Your task to perform on an android device: Search for sushi restaurants on Maps Image 0: 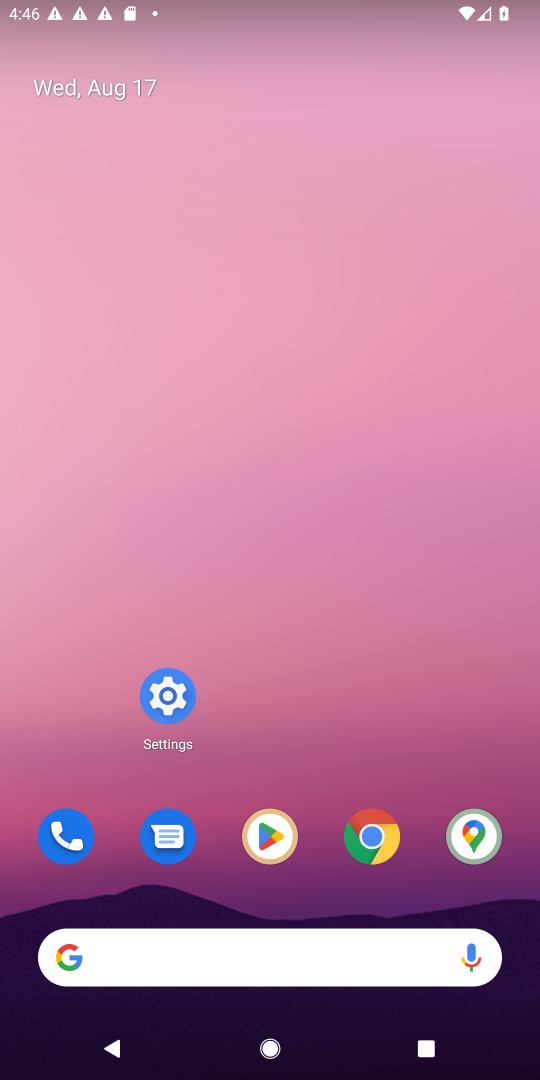
Step 0: click (474, 831)
Your task to perform on an android device: Search for sushi restaurants on Maps Image 1: 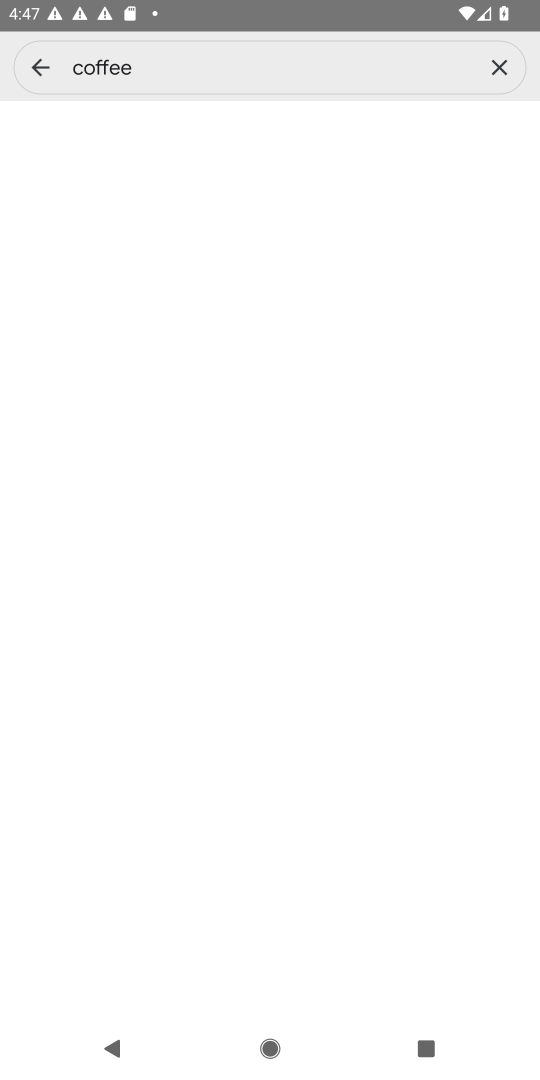
Step 1: click (496, 52)
Your task to perform on an android device: Search for sushi restaurants on Maps Image 2: 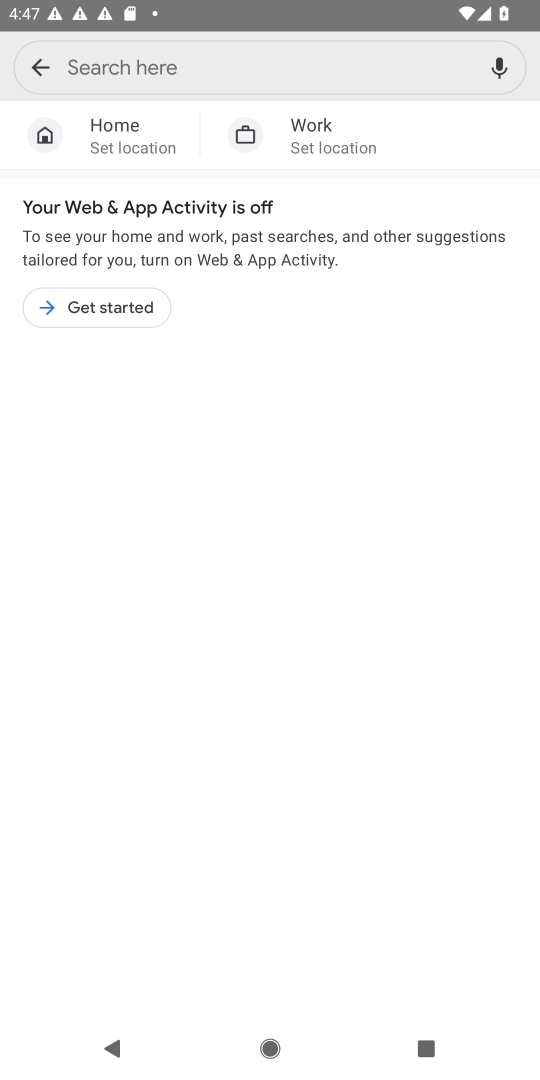
Step 2: type "sushi restaurants"
Your task to perform on an android device: Search for sushi restaurants on Maps Image 3: 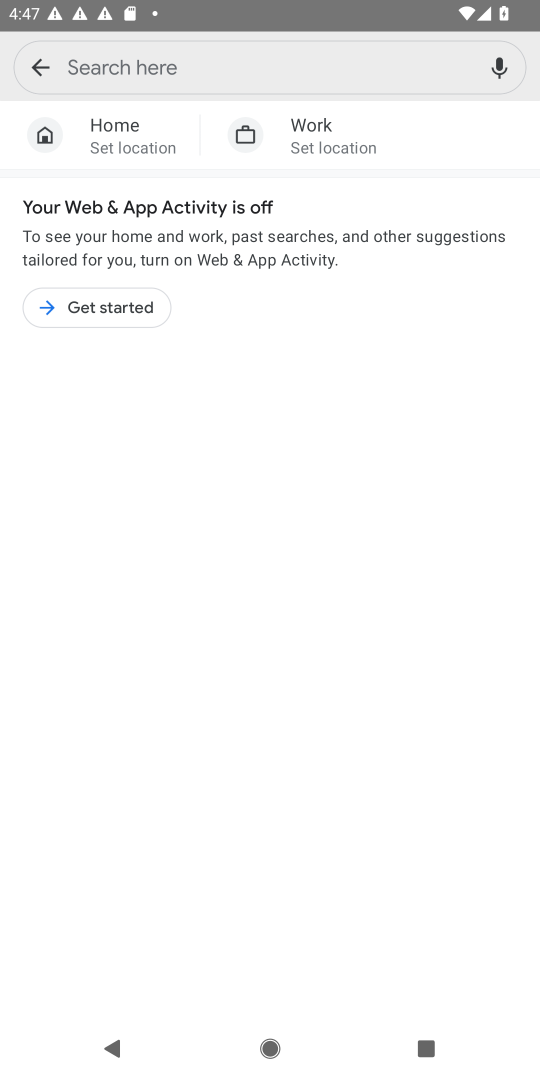
Step 3: click (95, 51)
Your task to perform on an android device: Search for sushi restaurants on Maps Image 4: 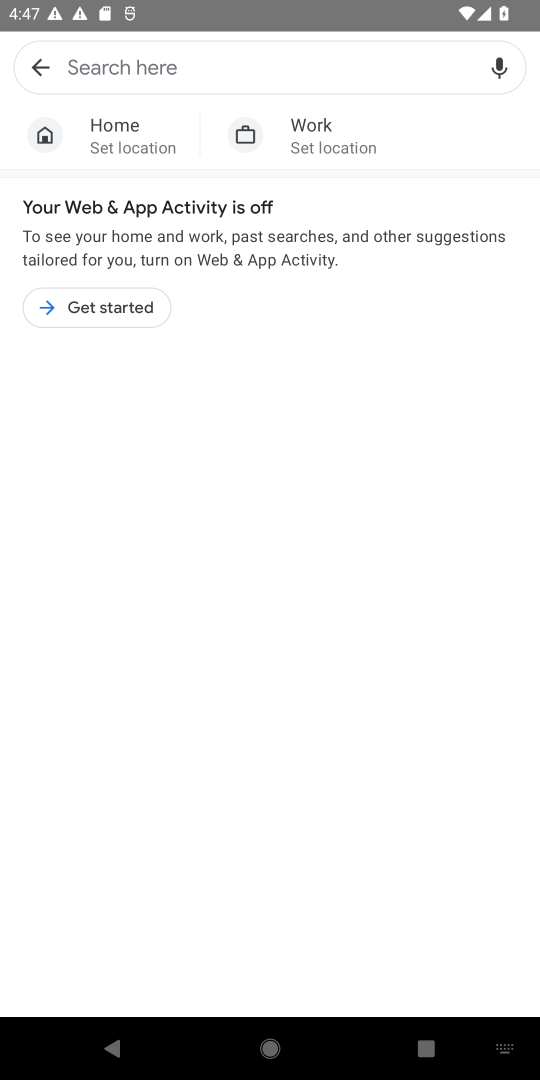
Step 4: type "sushi restaurants"
Your task to perform on an android device: Search for sushi restaurants on Maps Image 5: 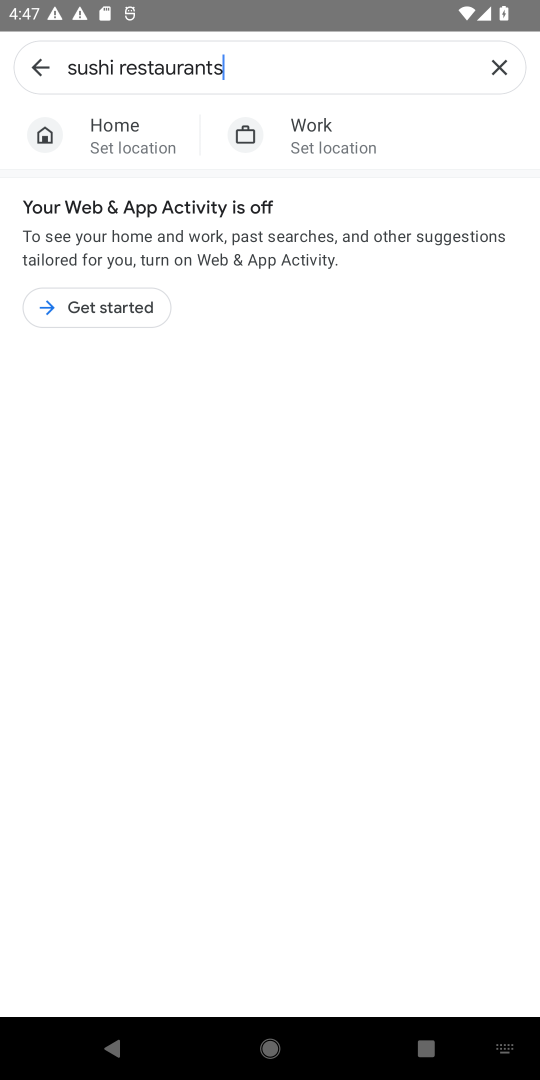
Step 5: click (64, 309)
Your task to perform on an android device: Search for sushi restaurants on Maps Image 6: 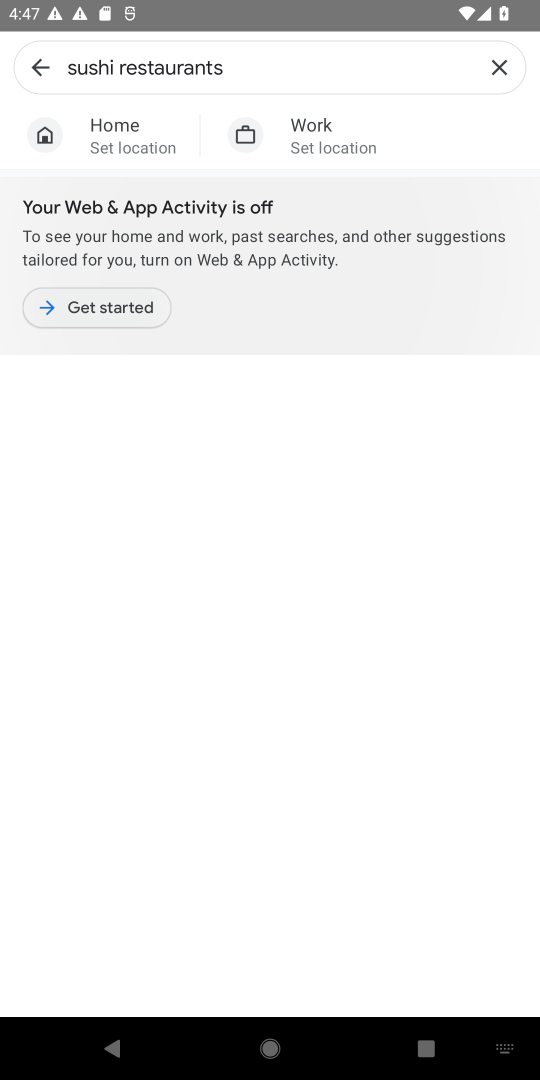
Step 6: click (64, 309)
Your task to perform on an android device: Search for sushi restaurants on Maps Image 7: 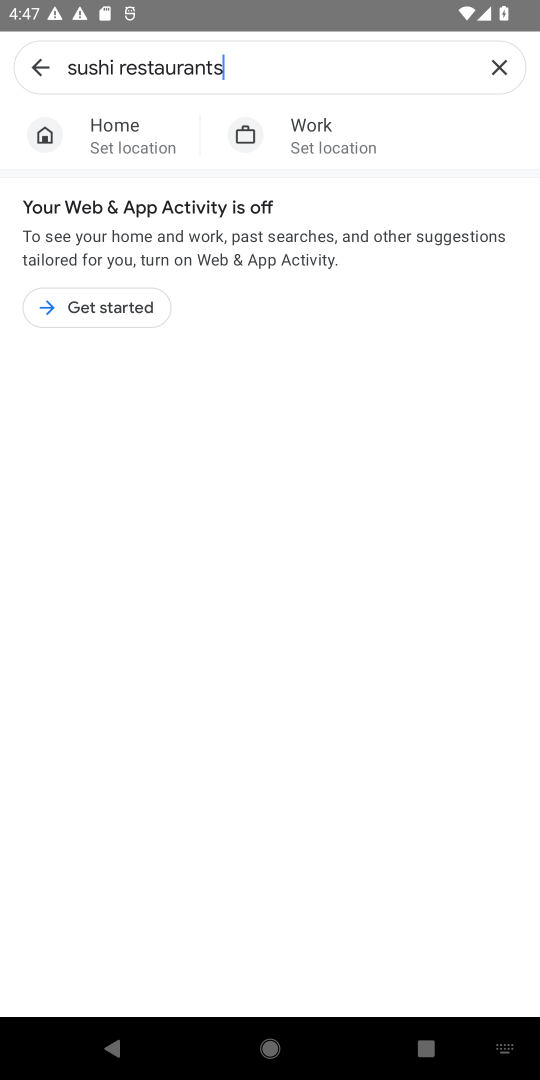
Step 7: click (165, 234)
Your task to perform on an android device: Search for sushi restaurants on Maps Image 8: 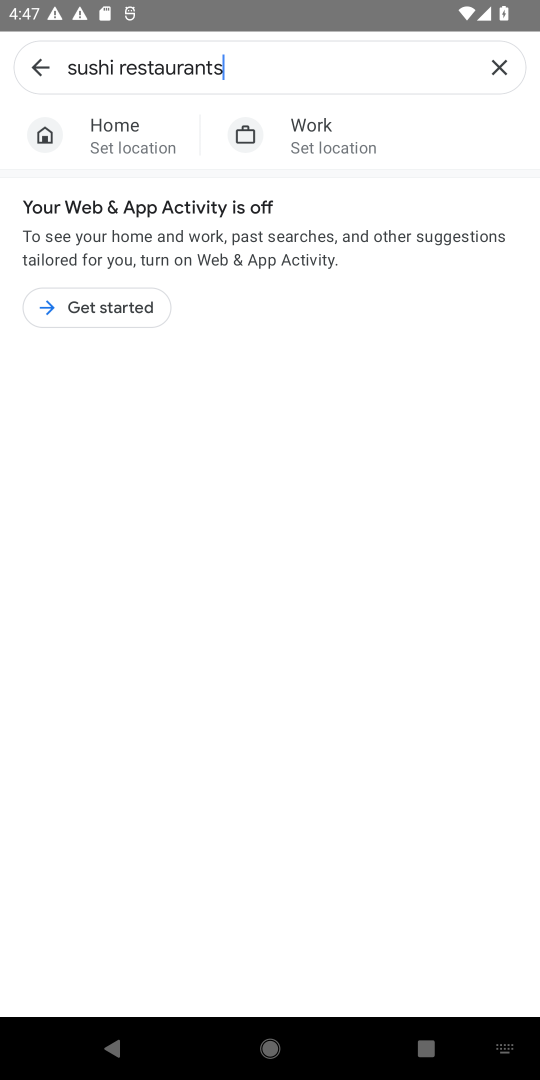
Step 8: click (168, 213)
Your task to perform on an android device: Search for sushi restaurants on Maps Image 9: 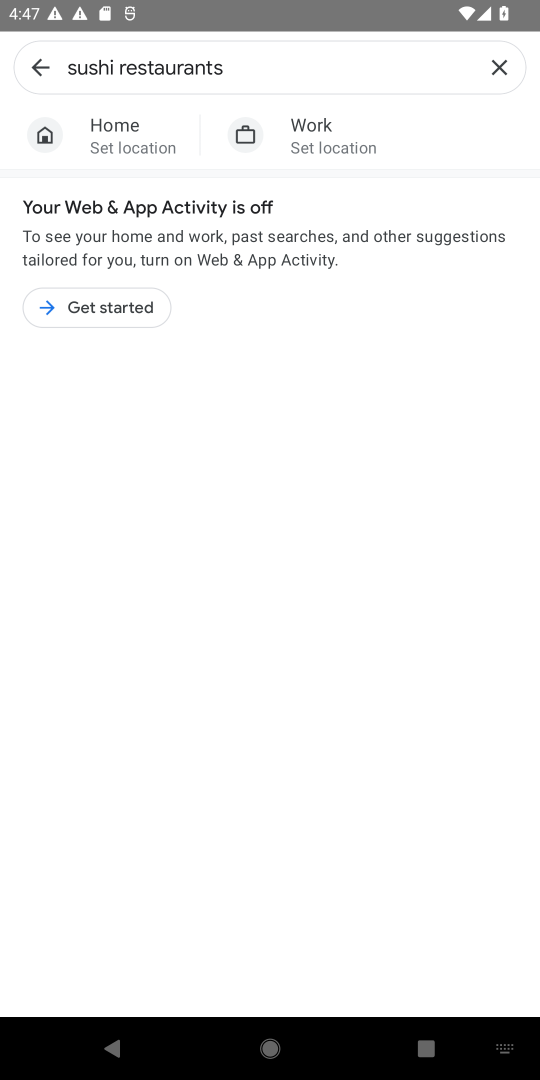
Step 9: click (83, 305)
Your task to perform on an android device: Search for sushi restaurants on Maps Image 10: 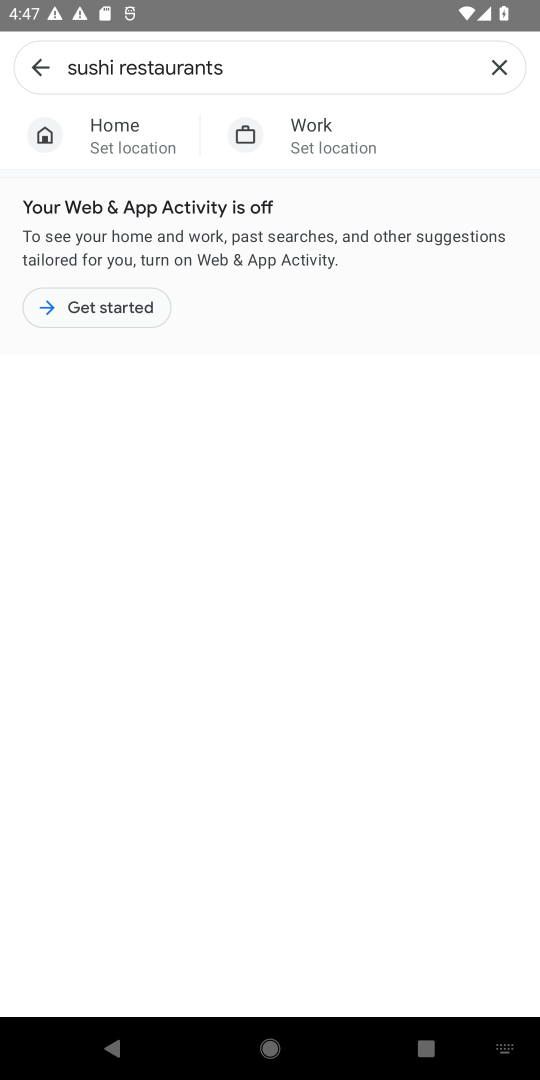
Step 10: click (83, 304)
Your task to perform on an android device: Search for sushi restaurants on Maps Image 11: 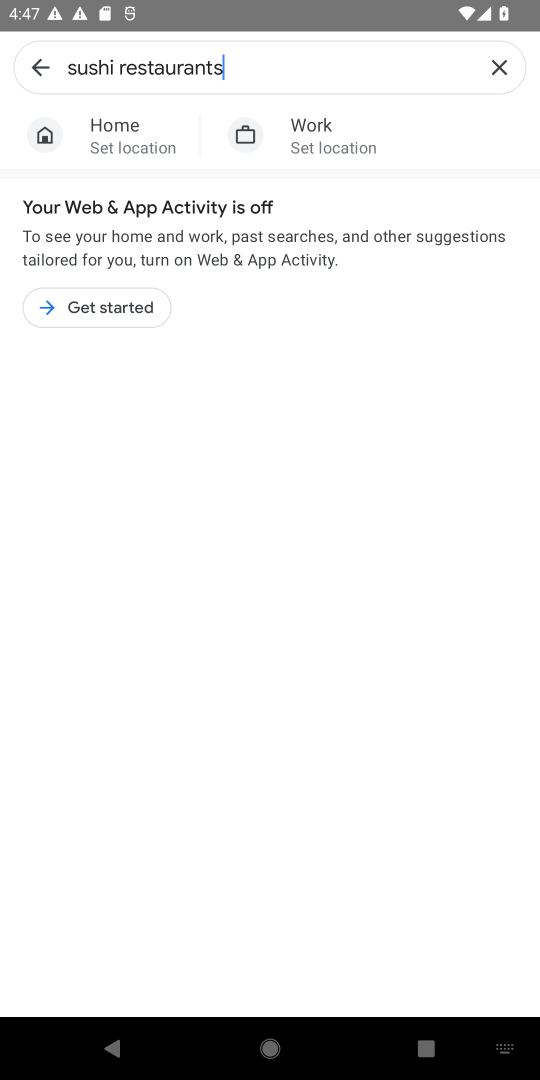
Step 11: click (83, 301)
Your task to perform on an android device: Search for sushi restaurants on Maps Image 12: 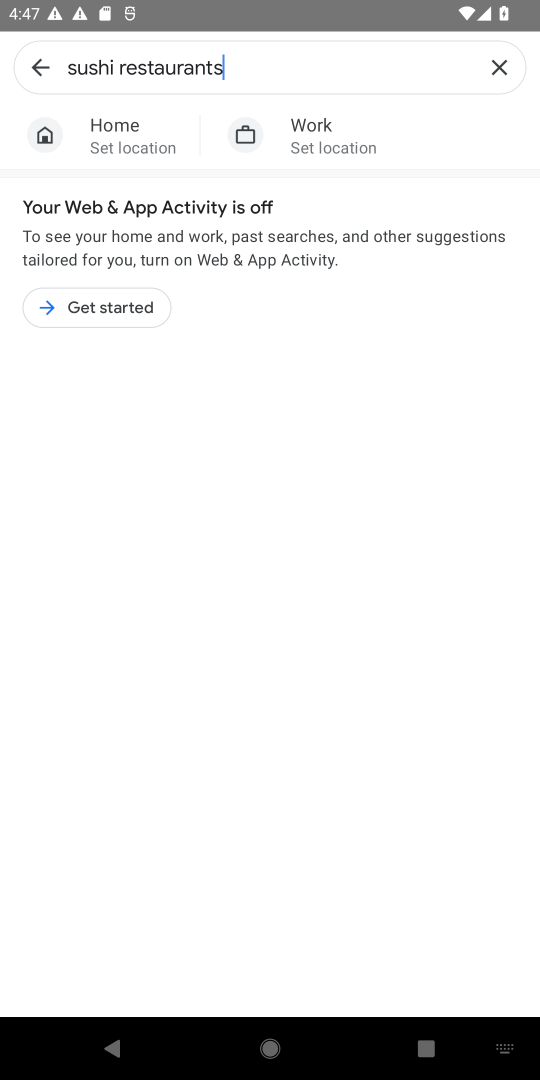
Step 12: click (122, 305)
Your task to perform on an android device: Search for sushi restaurants on Maps Image 13: 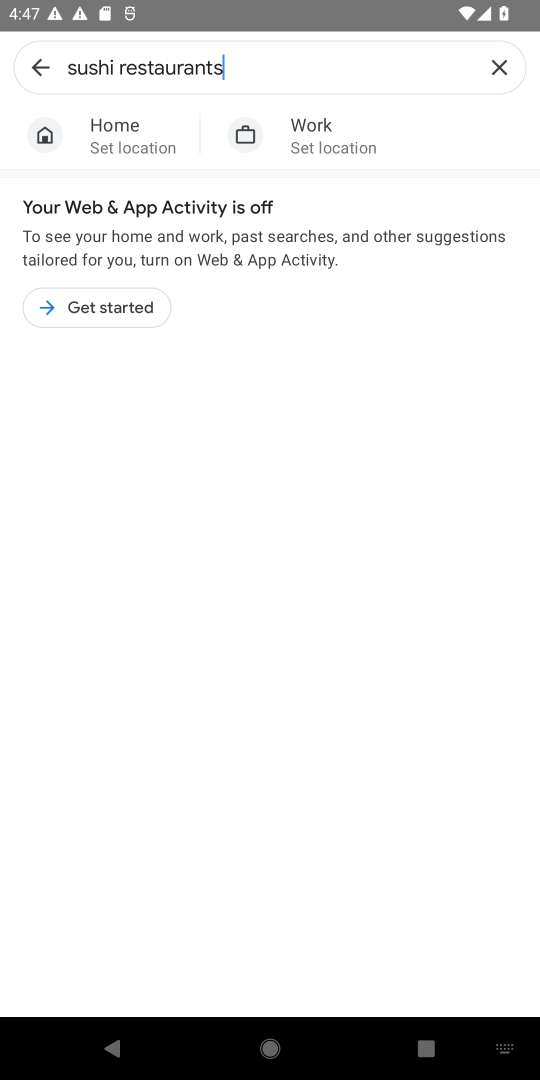
Step 13: click (123, 302)
Your task to perform on an android device: Search for sushi restaurants on Maps Image 14: 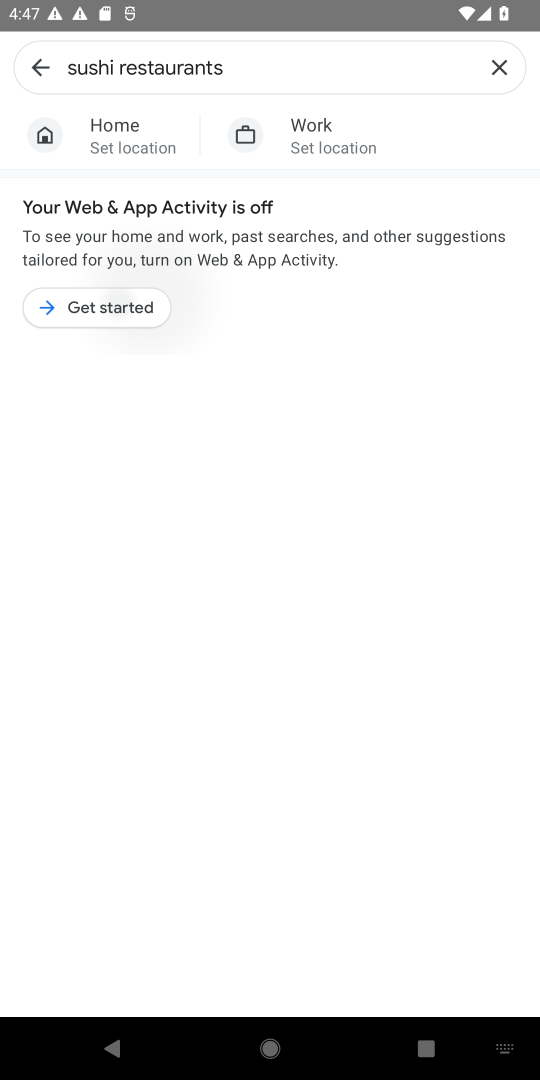
Step 14: click (123, 303)
Your task to perform on an android device: Search for sushi restaurants on Maps Image 15: 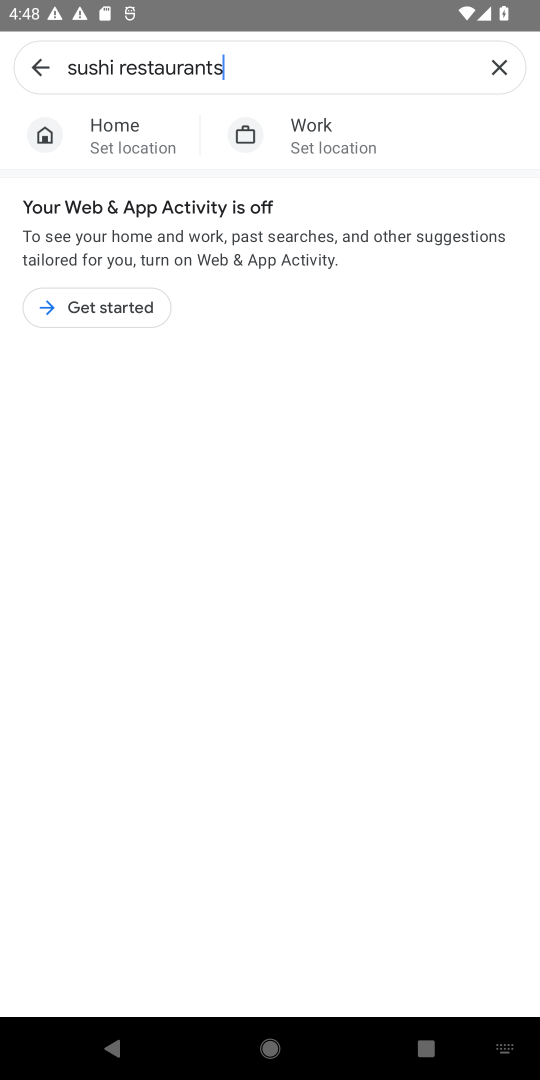
Step 15: task complete